Your task to perform on an android device: Search for sushi restaurants on Maps Image 0: 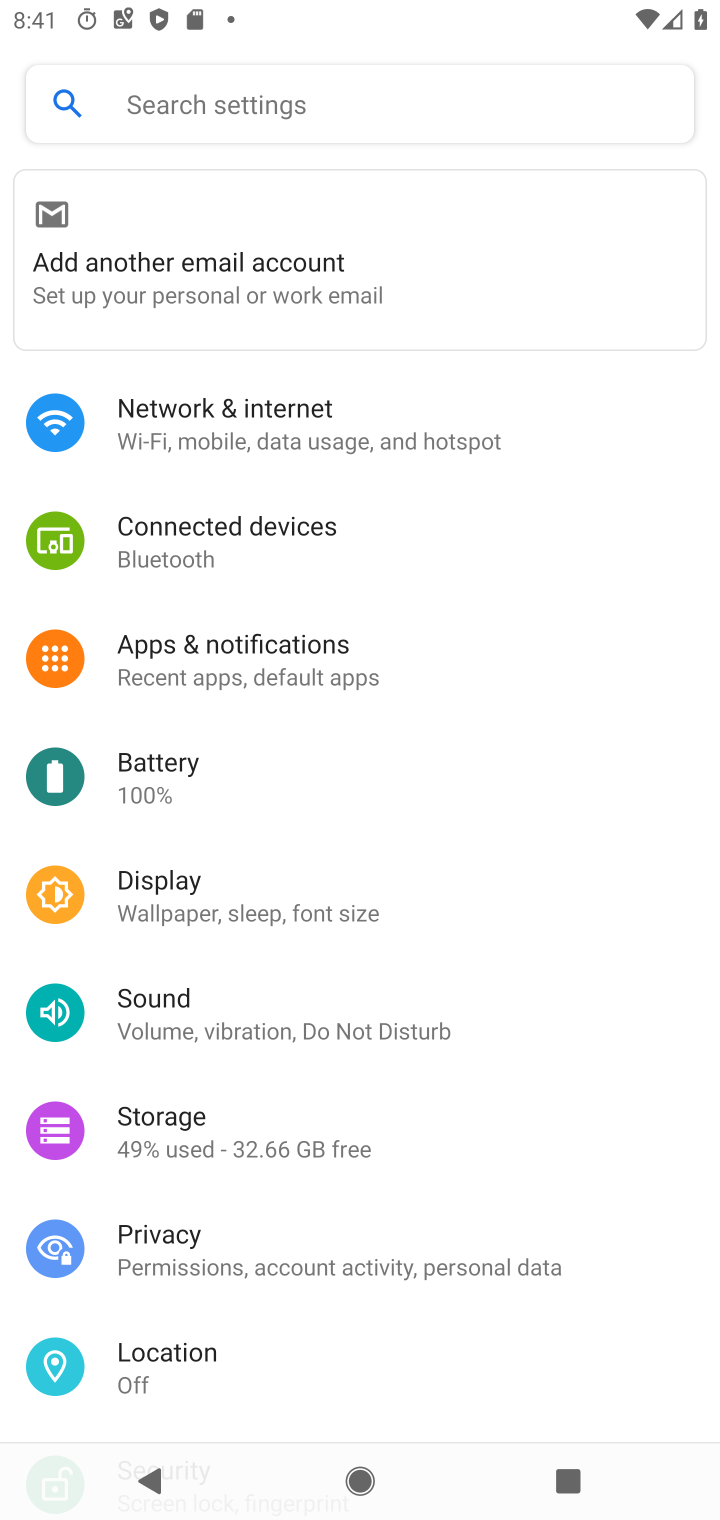
Step 0: press home button
Your task to perform on an android device: Search for sushi restaurants on Maps Image 1: 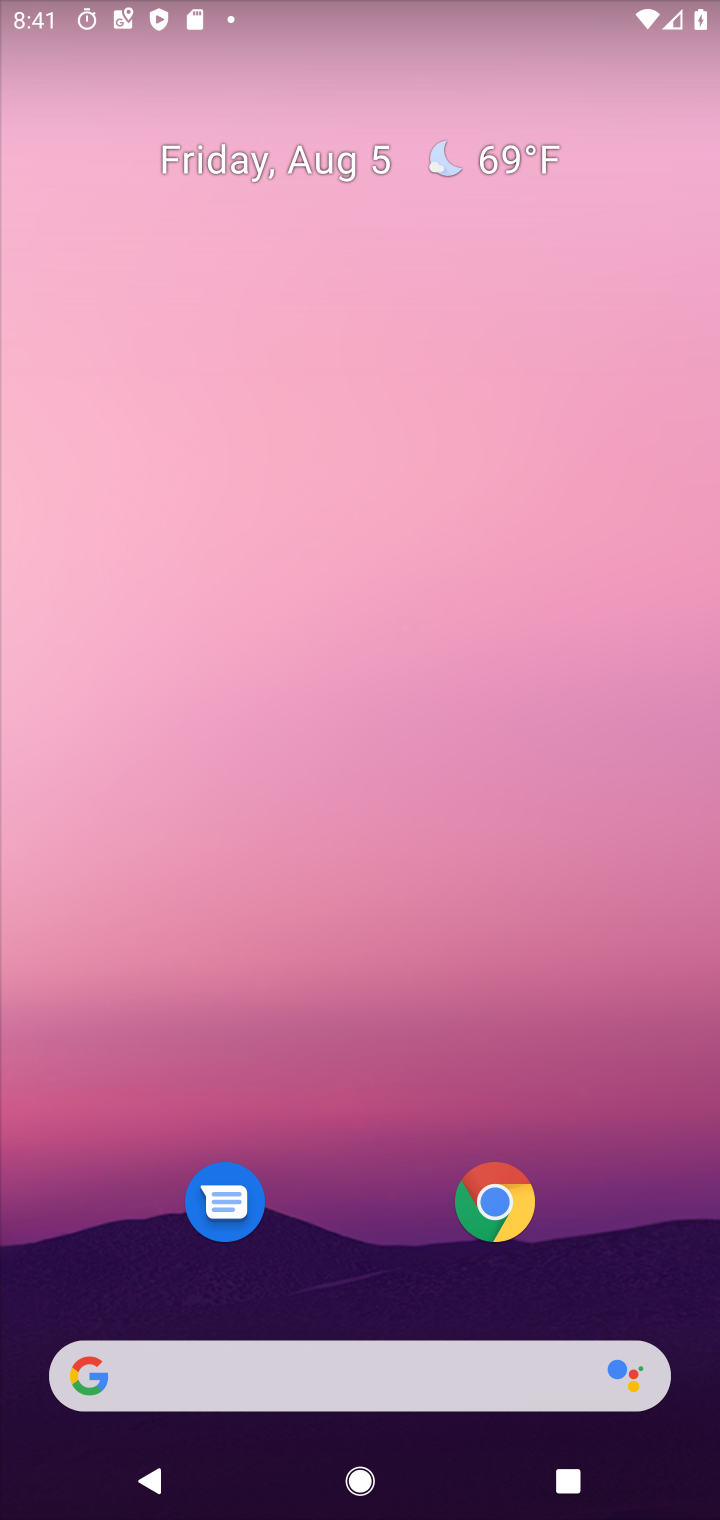
Step 1: drag from (369, 1143) to (353, 281)
Your task to perform on an android device: Search for sushi restaurants on Maps Image 2: 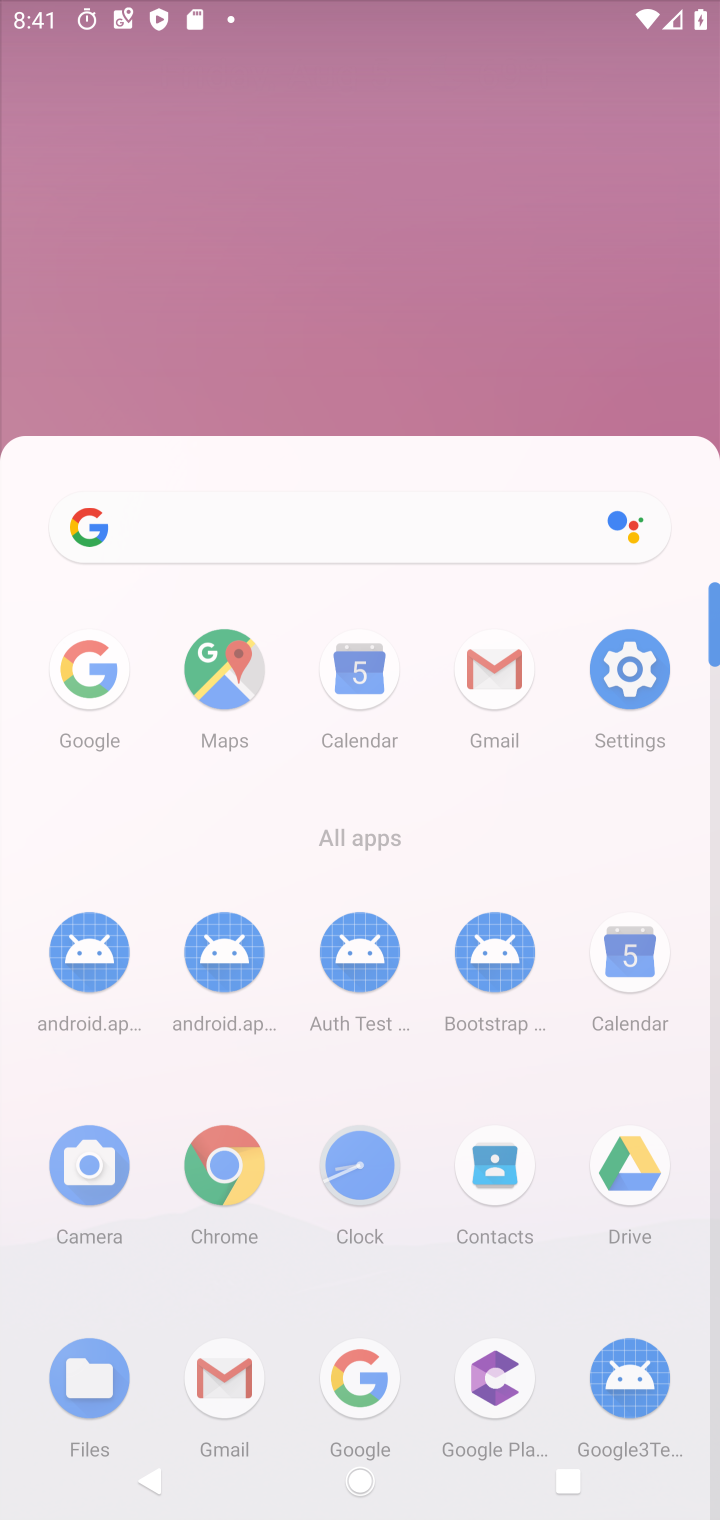
Step 2: click (353, 281)
Your task to perform on an android device: Search for sushi restaurants on Maps Image 3: 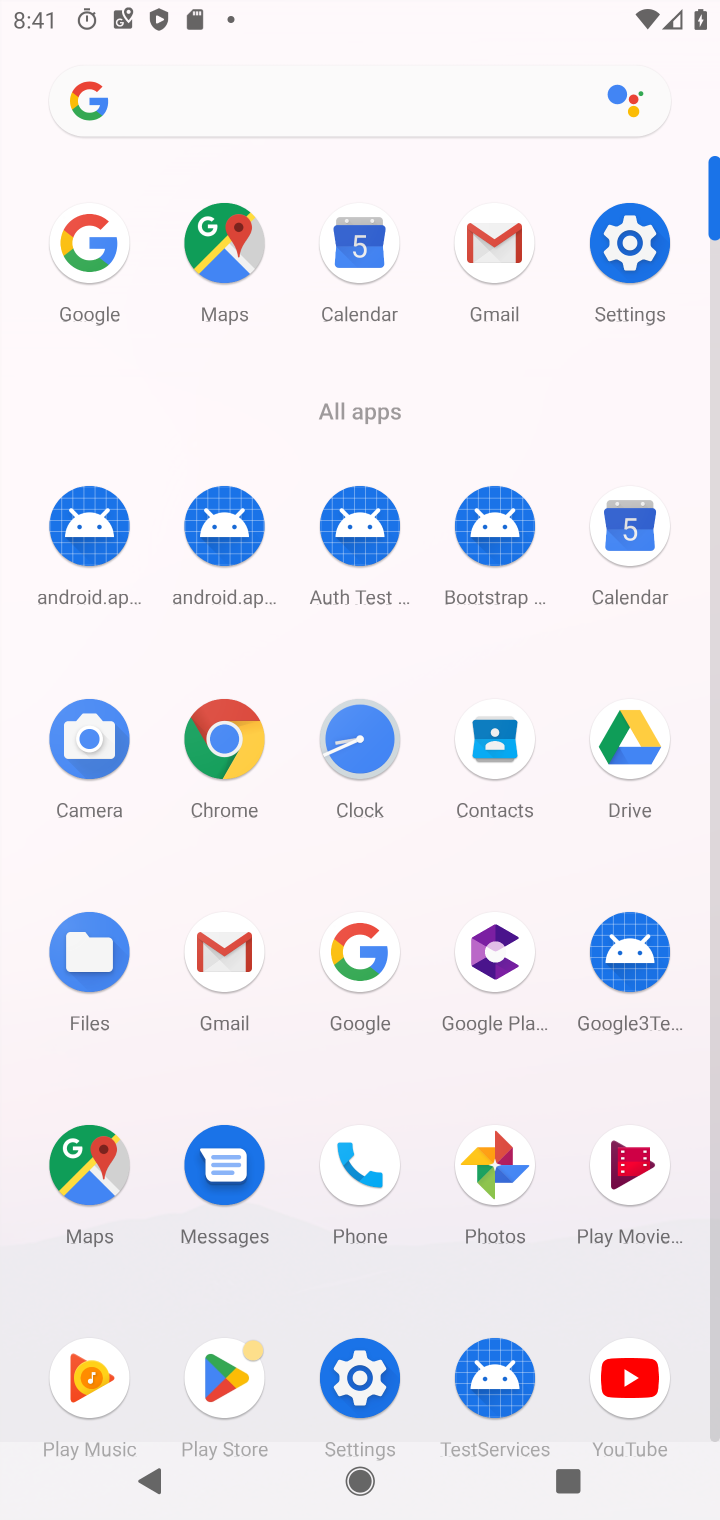
Step 3: click (68, 1197)
Your task to perform on an android device: Search for sushi restaurants on Maps Image 4: 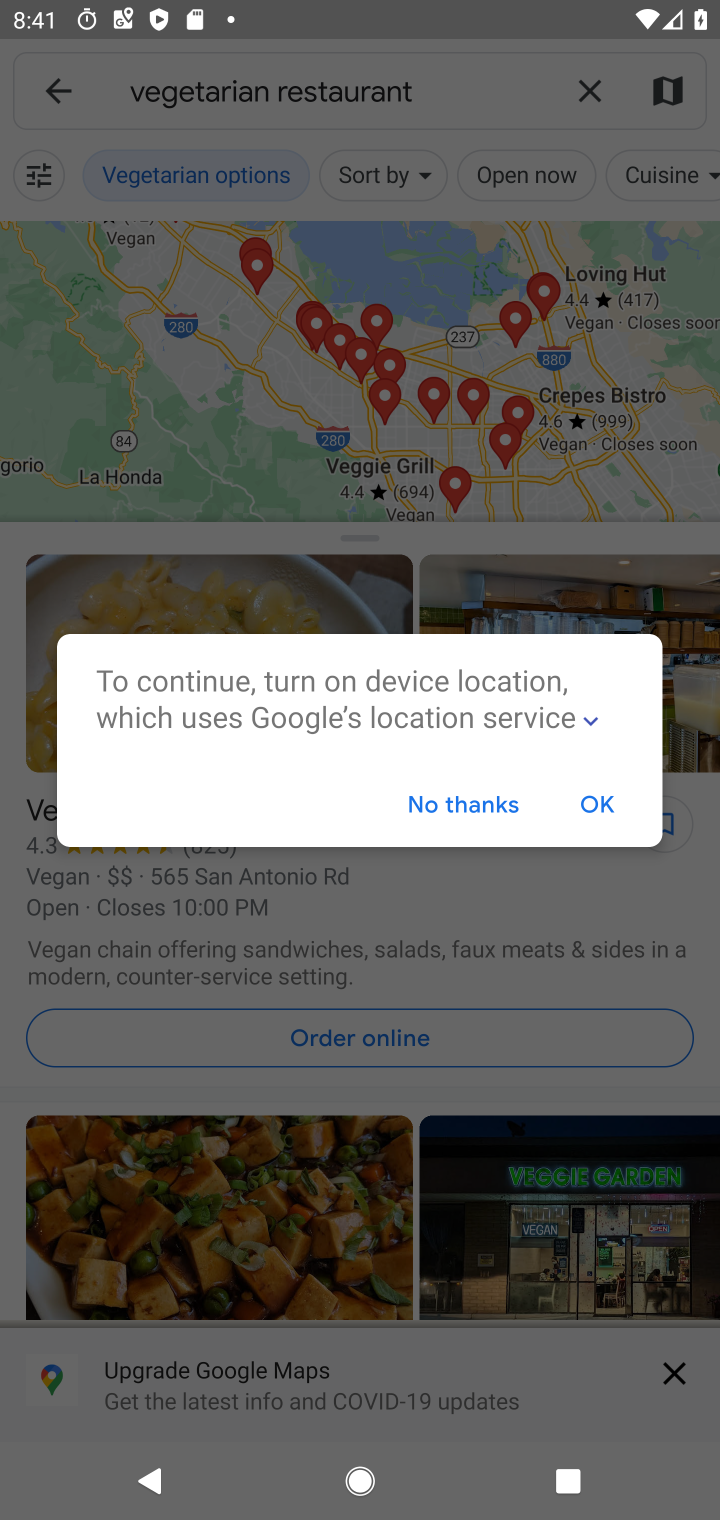
Step 4: click (584, 804)
Your task to perform on an android device: Search for sushi restaurants on Maps Image 5: 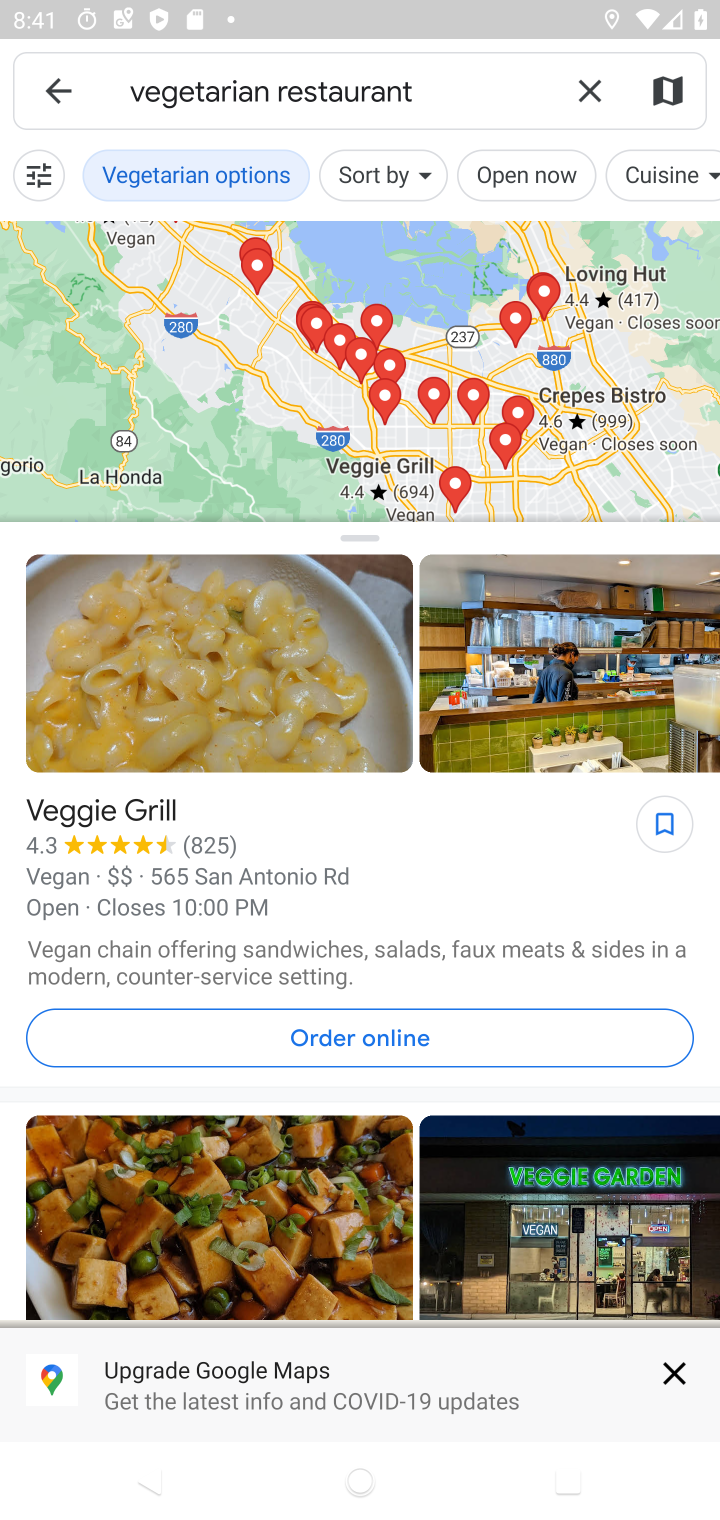
Step 5: click (488, 79)
Your task to perform on an android device: Search for sushi restaurants on Maps Image 6: 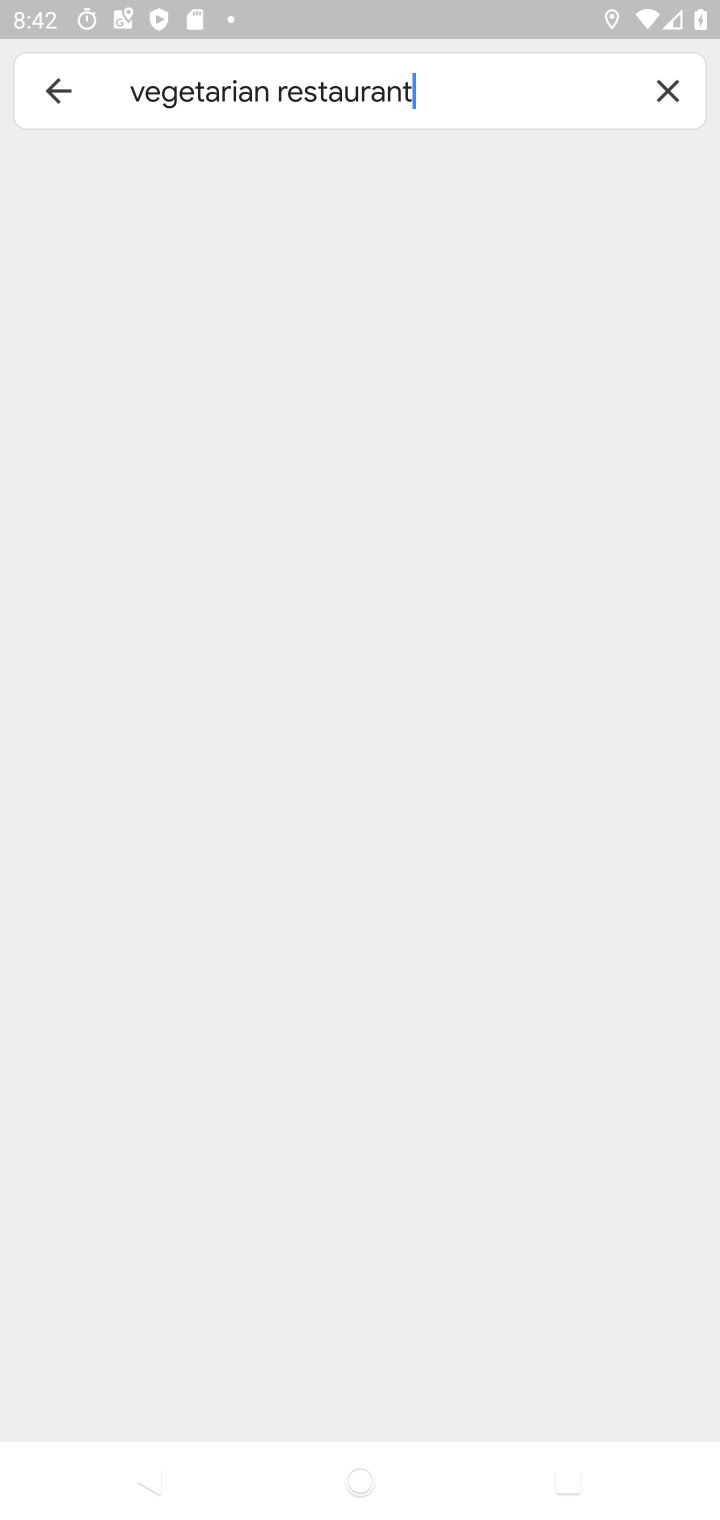
Step 6: click (662, 79)
Your task to perform on an android device: Search for sushi restaurants on Maps Image 7: 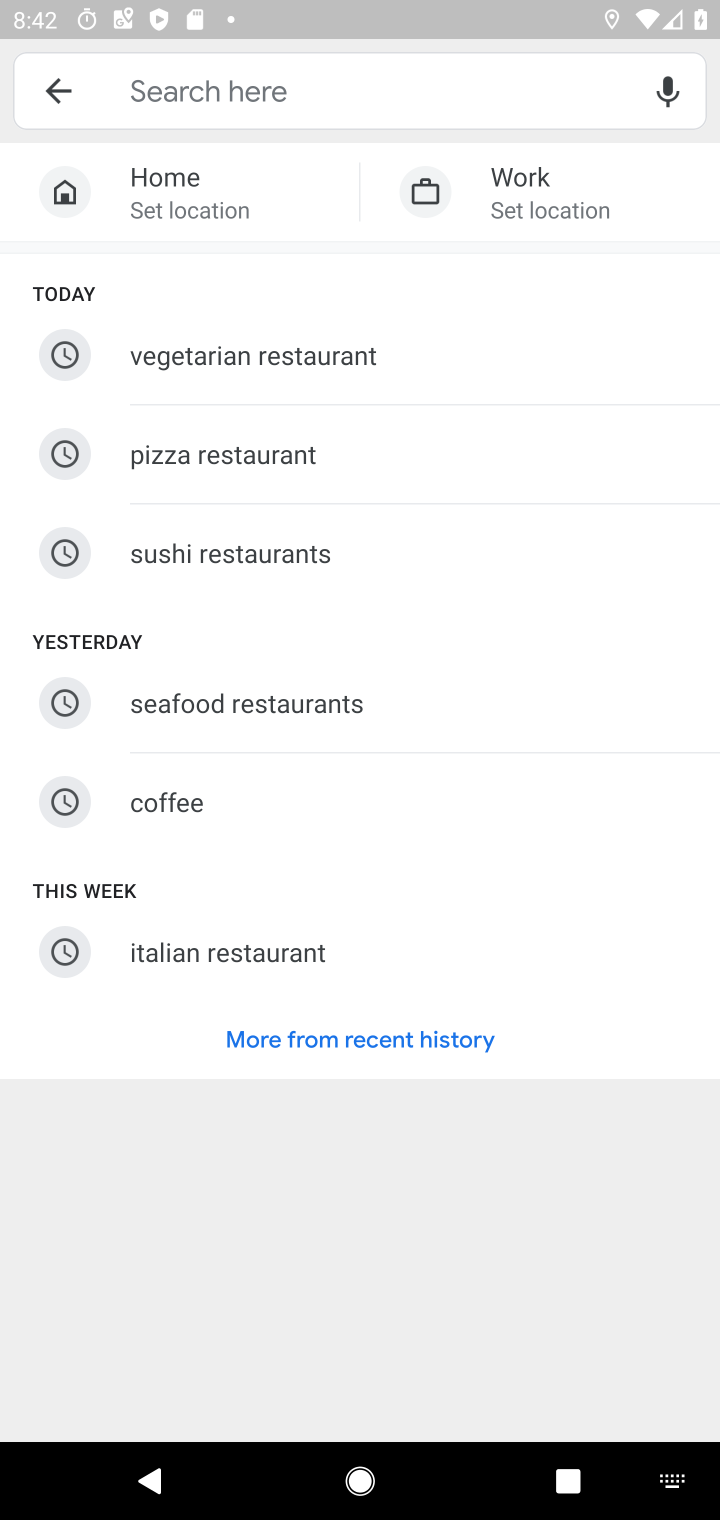
Step 7: type "sushi restaurants"
Your task to perform on an android device: Search for sushi restaurants on Maps Image 8: 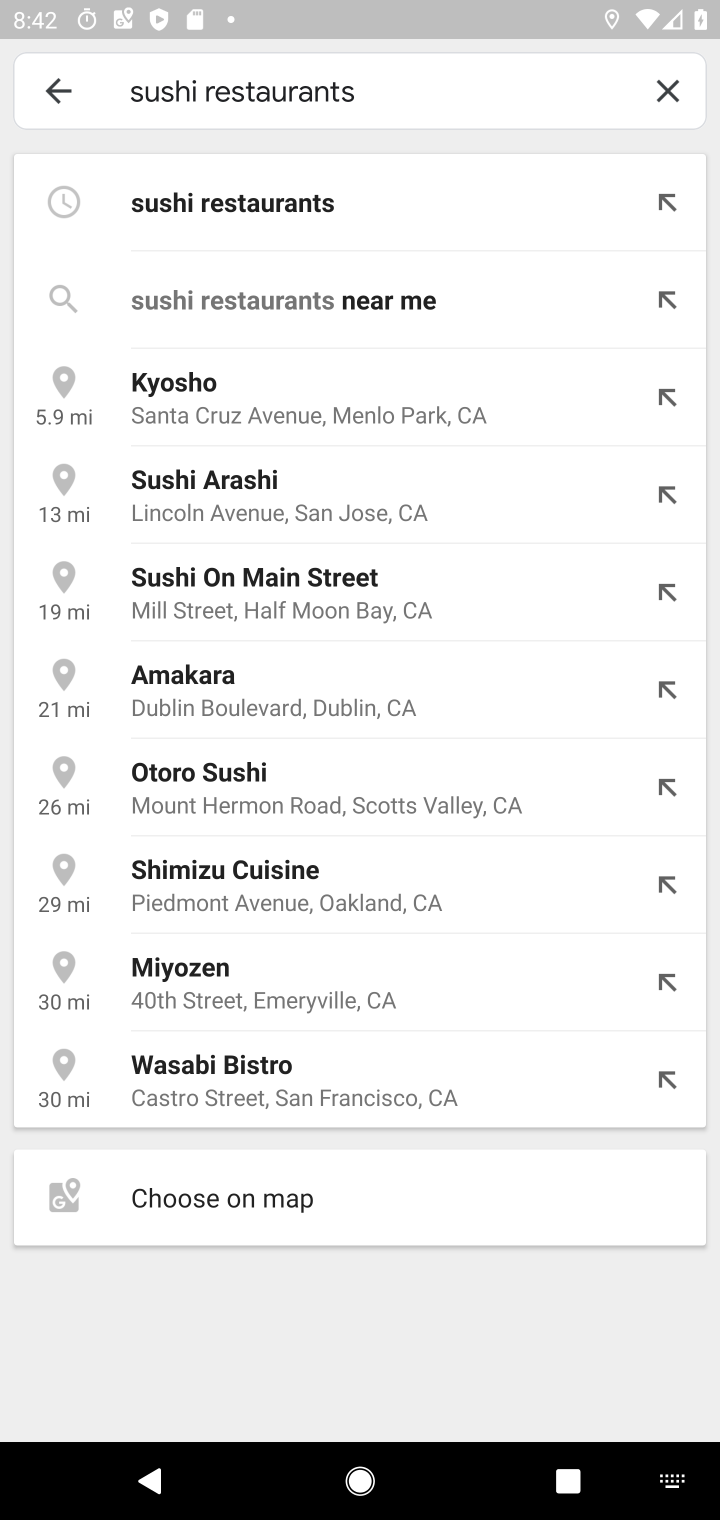
Step 8: click (281, 207)
Your task to perform on an android device: Search for sushi restaurants on Maps Image 9: 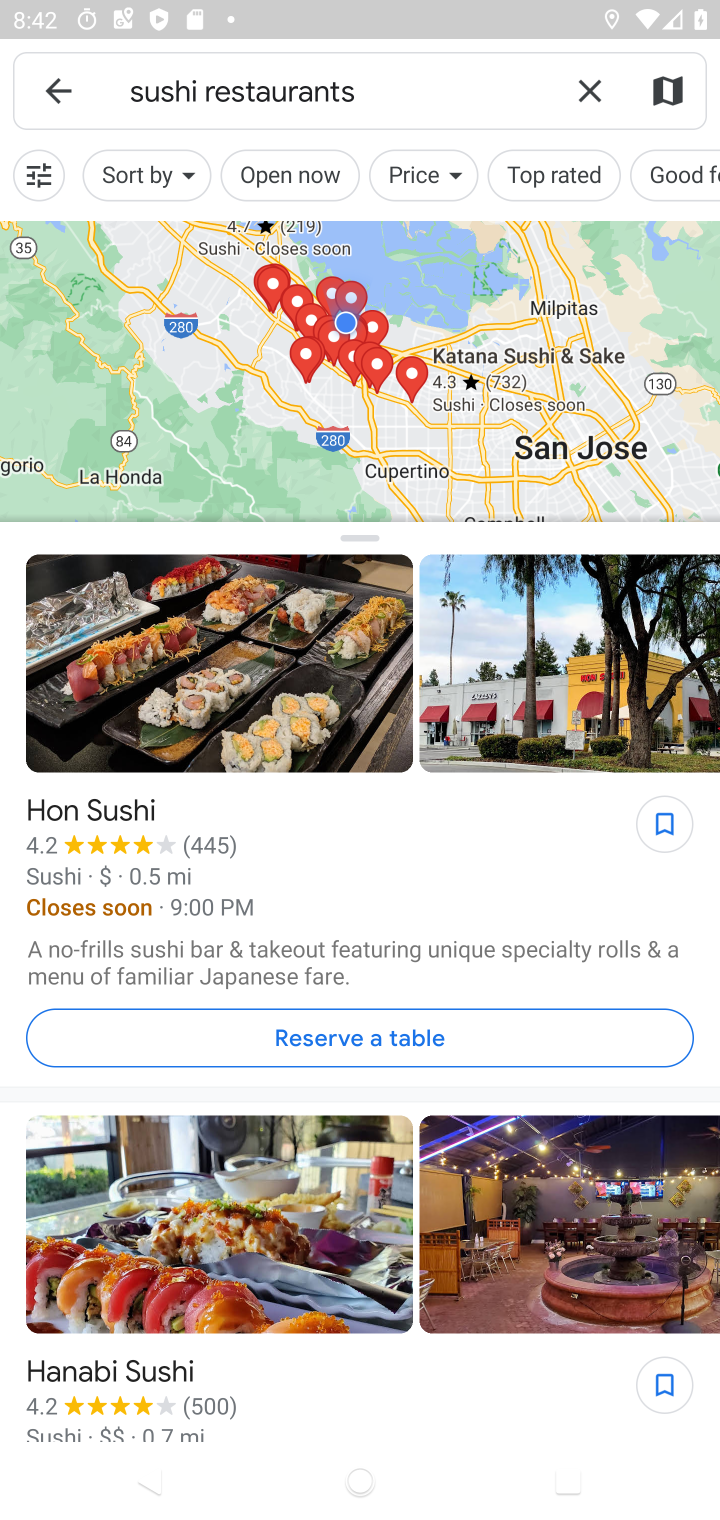
Step 9: task complete